Your task to perform on an android device: Turn on the flashlight Image 0: 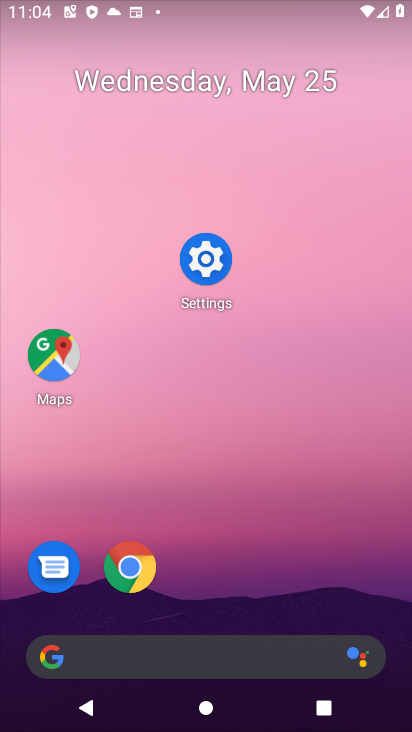
Step 0: drag from (313, 486) to (303, 365)
Your task to perform on an android device: Turn on the flashlight Image 1: 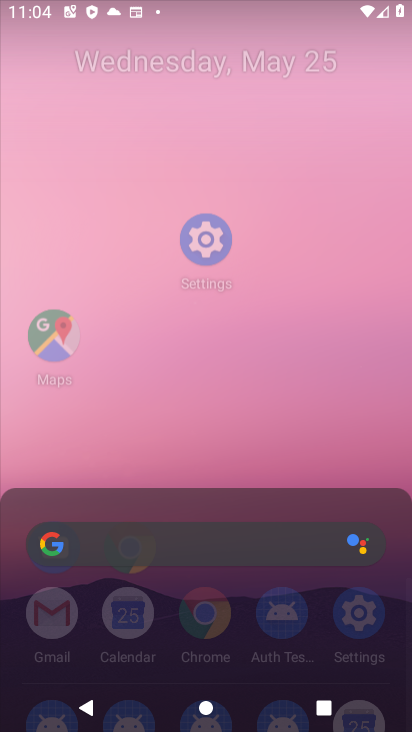
Step 1: click (199, 283)
Your task to perform on an android device: Turn on the flashlight Image 2: 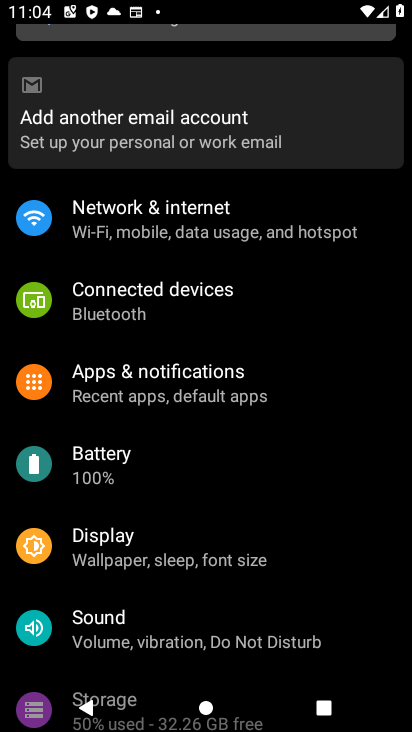
Step 2: click (206, 395)
Your task to perform on an android device: Turn on the flashlight Image 3: 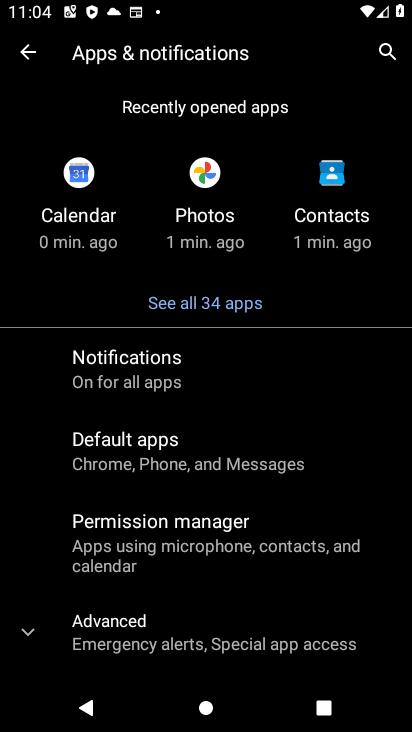
Step 3: task complete